Your task to perform on an android device: open a new tab in the chrome app Image 0: 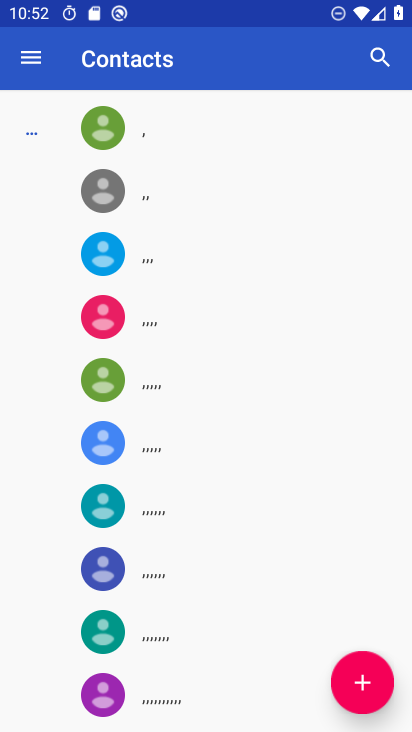
Step 0: press home button
Your task to perform on an android device: open a new tab in the chrome app Image 1: 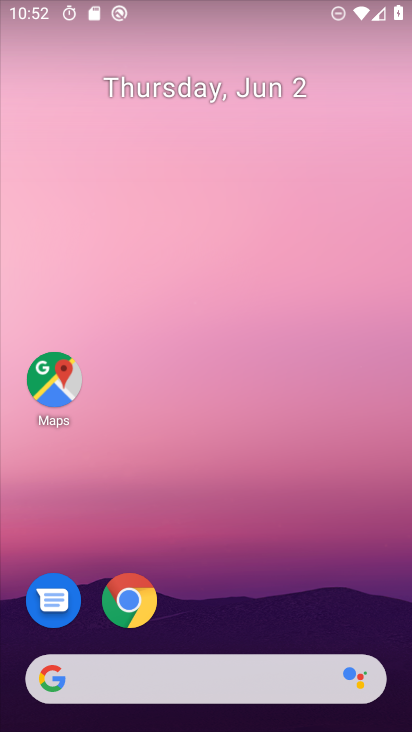
Step 1: click (132, 607)
Your task to perform on an android device: open a new tab in the chrome app Image 2: 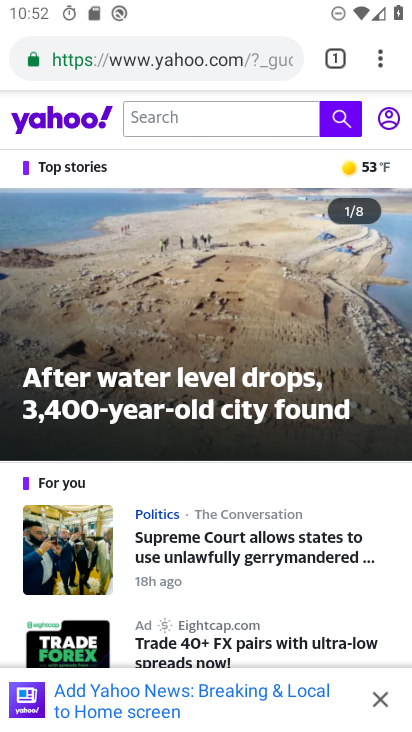
Step 2: click (339, 55)
Your task to perform on an android device: open a new tab in the chrome app Image 3: 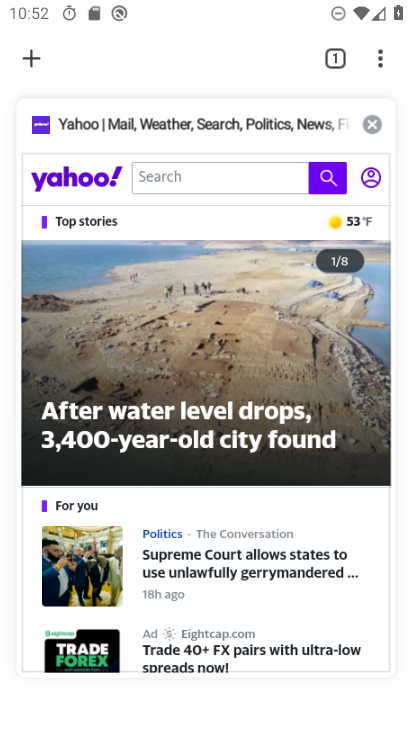
Step 3: click (33, 61)
Your task to perform on an android device: open a new tab in the chrome app Image 4: 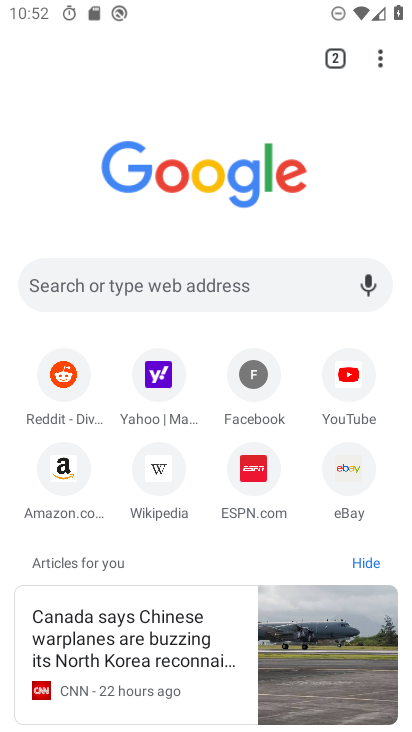
Step 4: task complete